Your task to perform on an android device: Is it going to rain today? Image 0: 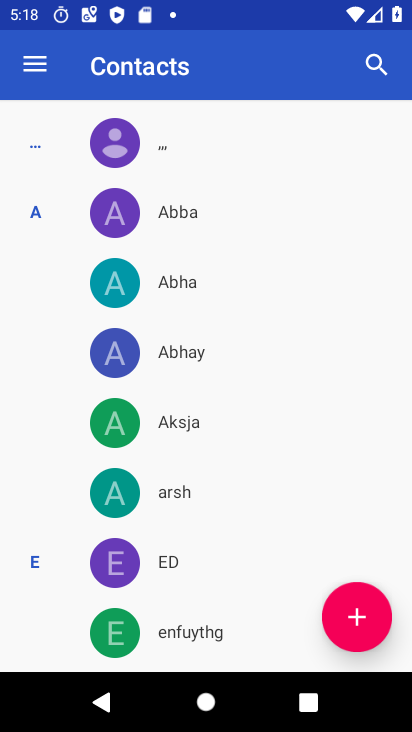
Step 0: press home button
Your task to perform on an android device: Is it going to rain today? Image 1: 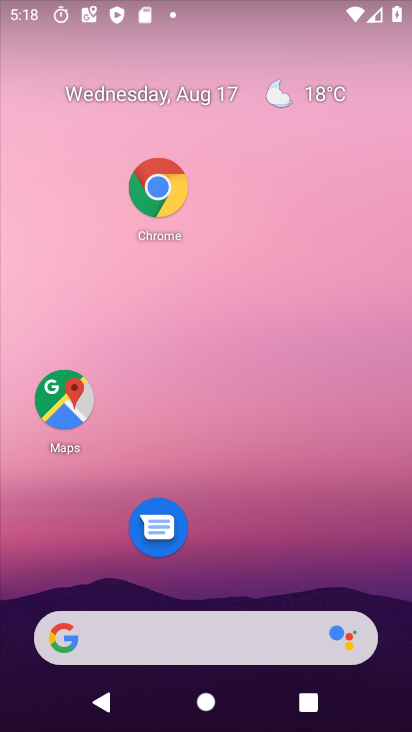
Step 1: click (324, 95)
Your task to perform on an android device: Is it going to rain today? Image 2: 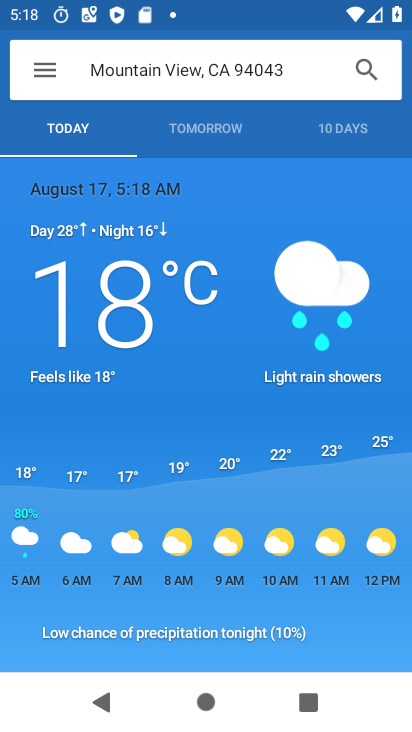
Step 2: task complete